Your task to perform on an android device: read, delete, or share a saved page in the chrome app Image 0: 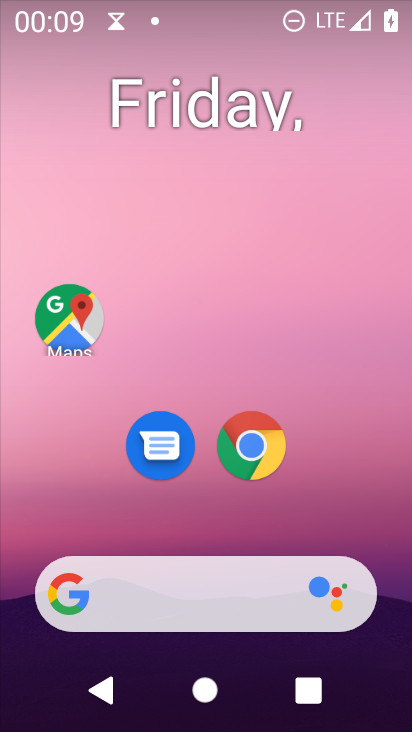
Step 0: click (255, 444)
Your task to perform on an android device: read, delete, or share a saved page in the chrome app Image 1: 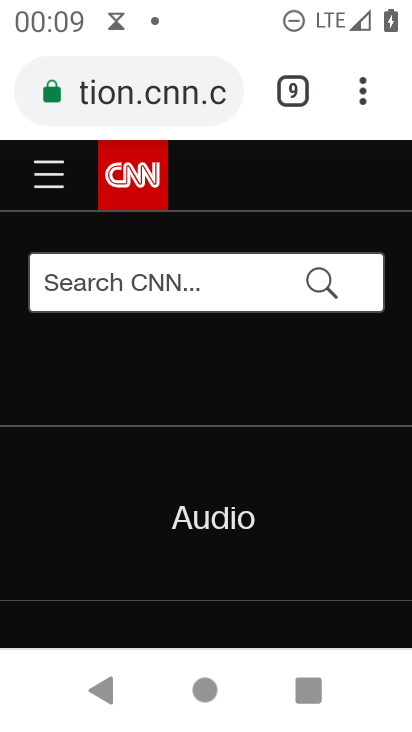
Step 1: click (362, 98)
Your task to perform on an android device: read, delete, or share a saved page in the chrome app Image 2: 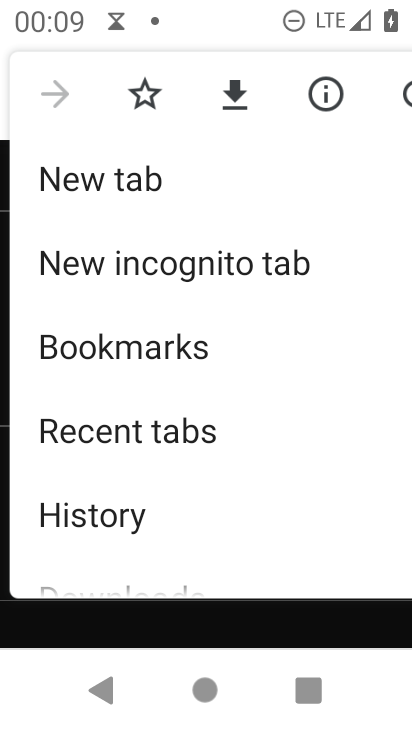
Step 2: drag from (99, 505) to (104, 258)
Your task to perform on an android device: read, delete, or share a saved page in the chrome app Image 3: 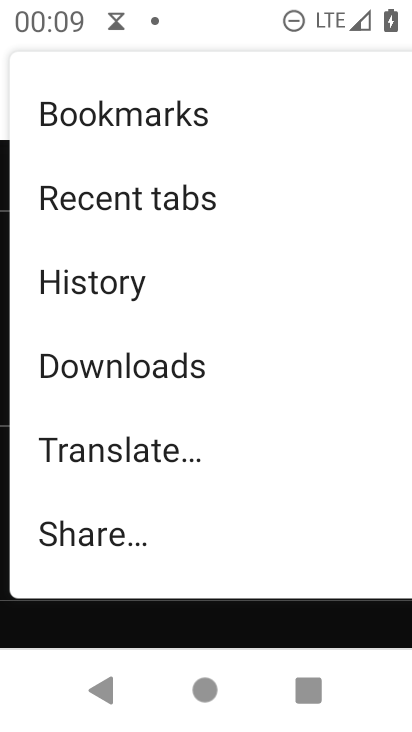
Step 3: click (177, 363)
Your task to perform on an android device: read, delete, or share a saved page in the chrome app Image 4: 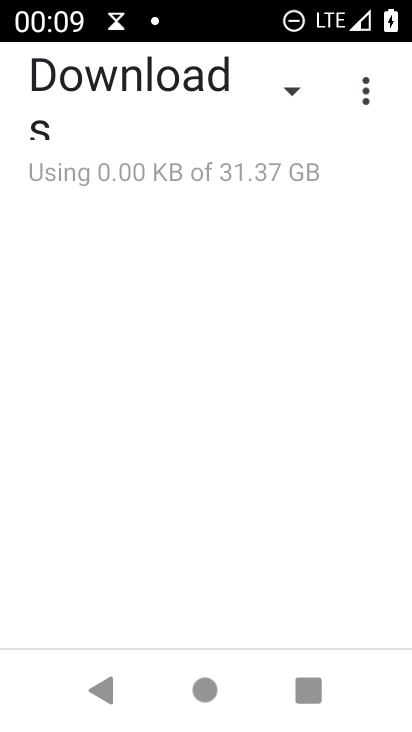
Step 4: click (292, 86)
Your task to perform on an android device: read, delete, or share a saved page in the chrome app Image 5: 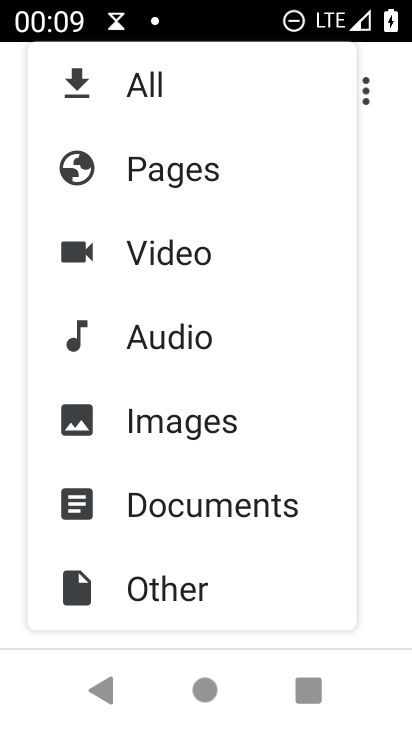
Step 5: click (176, 169)
Your task to perform on an android device: read, delete, or share a saved page in the chrome app Image 6: 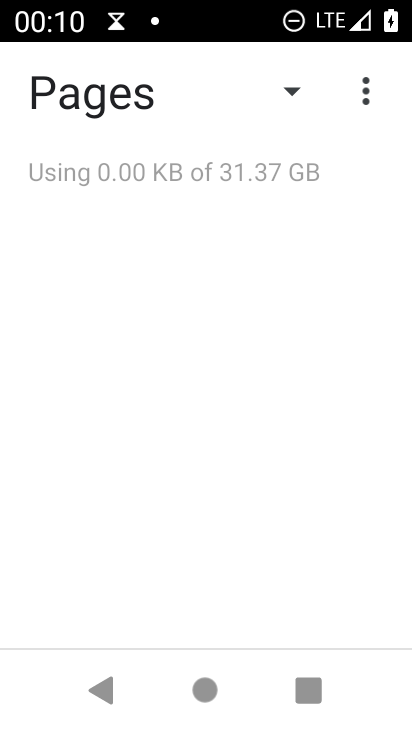
Step 6: task complete